Your task to perform on an android device: open wifi settings Image 0: 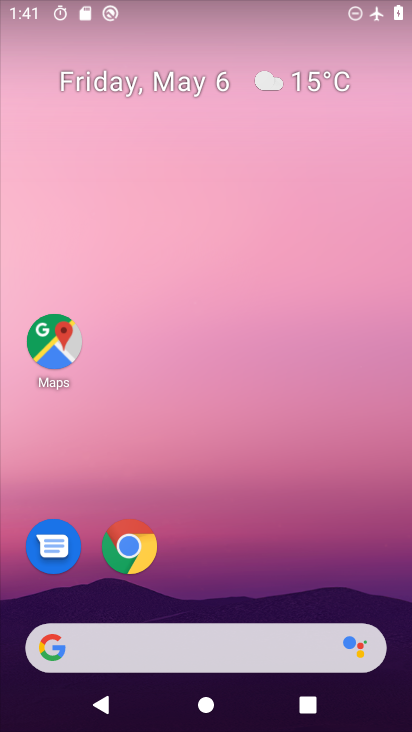
Step 0: drag from (257, 556) to (308, 203)
Your task to perform on an android device: open wifi settings Image 1: 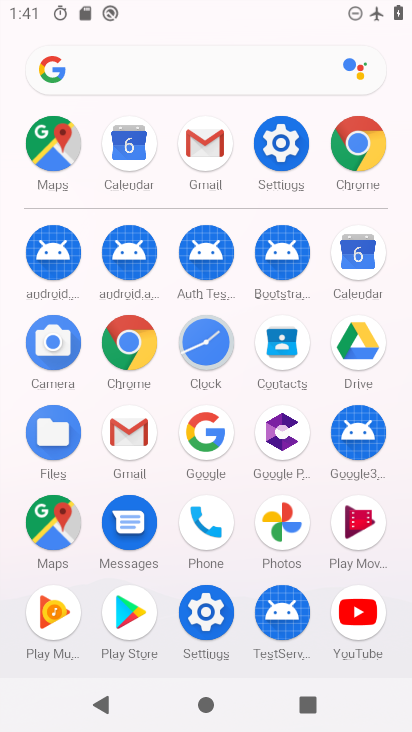
Step 1: click (284, 151)
Your task to perform on an android device: open wifi settings Image 2: 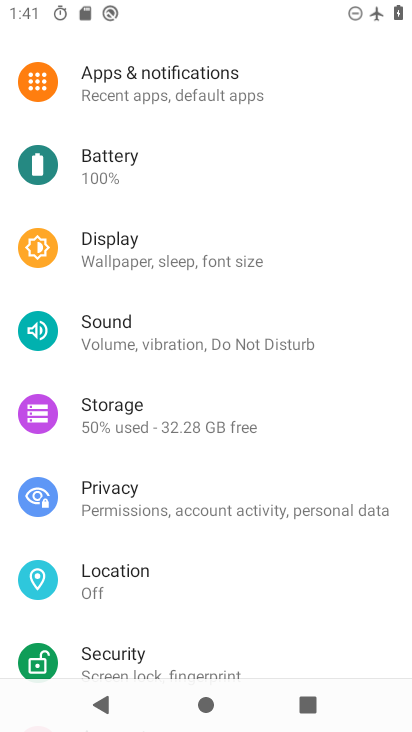
Step 2: drag from (275, 200) to (239, 681)
Your task to perform on an android device: open wifi settings Image 3: 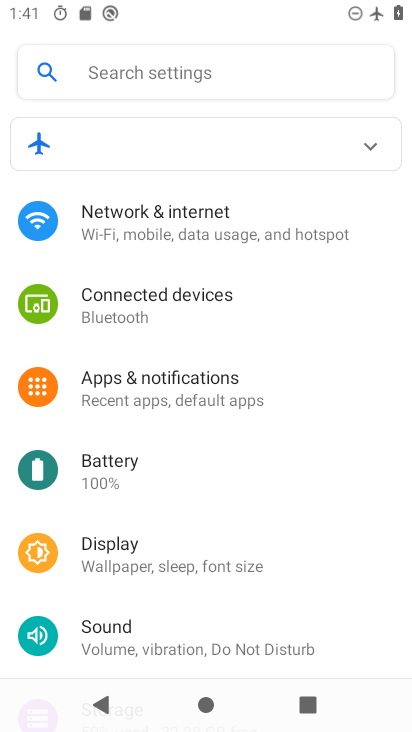
Step 3: click (240, 212)
Your task to perform on an android device: open wifi settings Image 4: 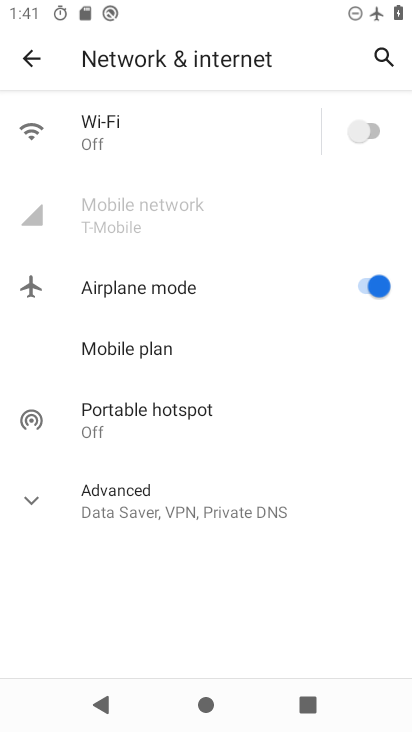
Step 4: click (243, 132)
Your task to perform on an android device: open wifi settings Image 5: 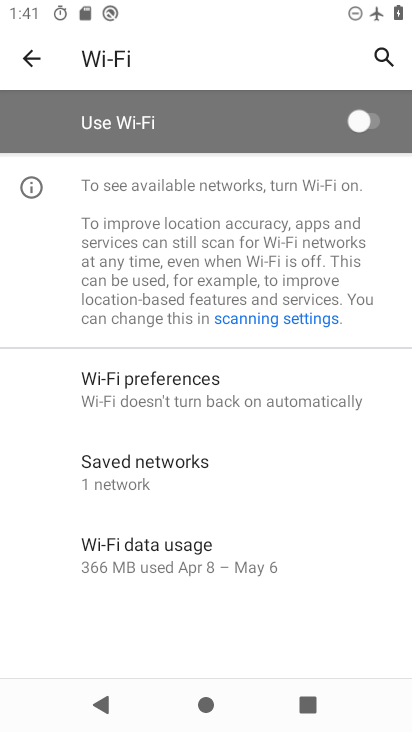
Step 5: task complete